Your task to perform on an android device: Open Wikipedia Image 0: 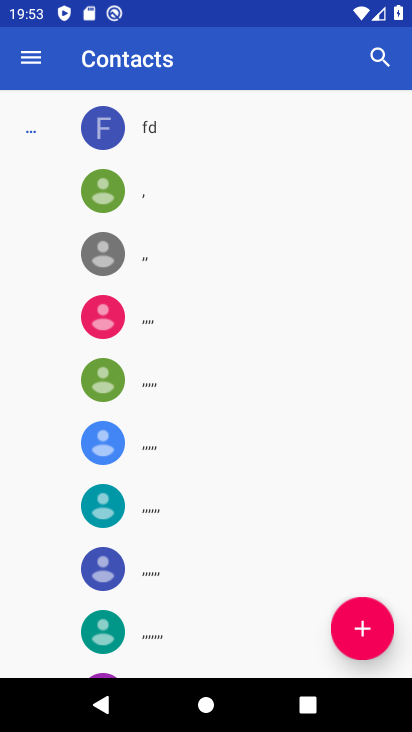
Step 0: press home button
Your task to perform on an android device: Open Wikipedia Image 1: 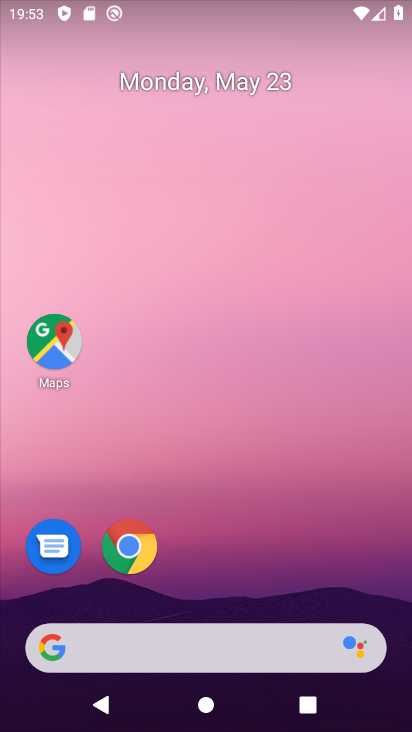
Step 1: drag from (382, 582) to (385, 297)
Your task to perform on an android device: Open Wikipedia Image 2: 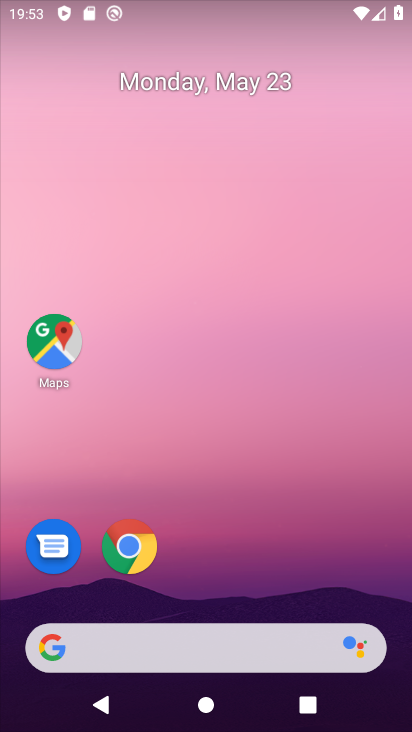
Step 2: drag from (356, 552) to (338, 201)
Your task to perform on an android device: Open Wikipedia Image 3: 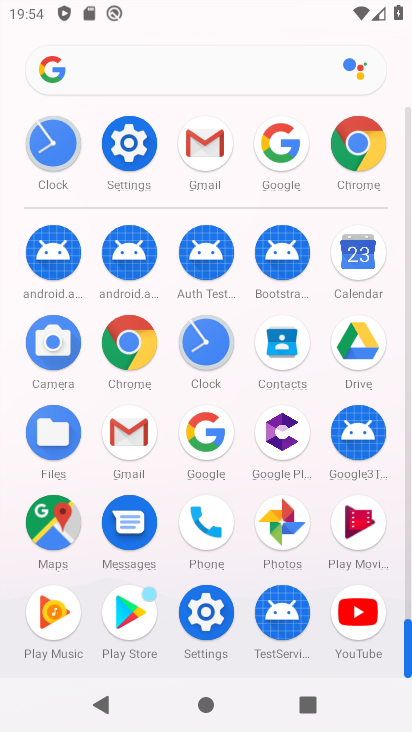
Step 3: click (138, 351)
Your task to perform on an android device: Open Wikipedia Image 4: 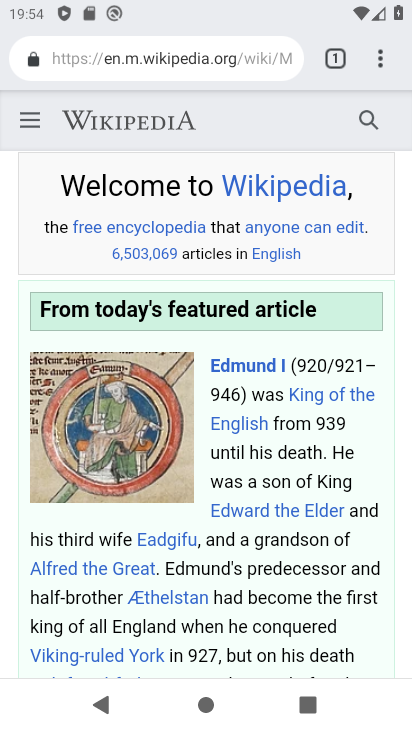
Step 4: task complete